Your task to perform on an android device: open app "Mercado Libre" Image 0: 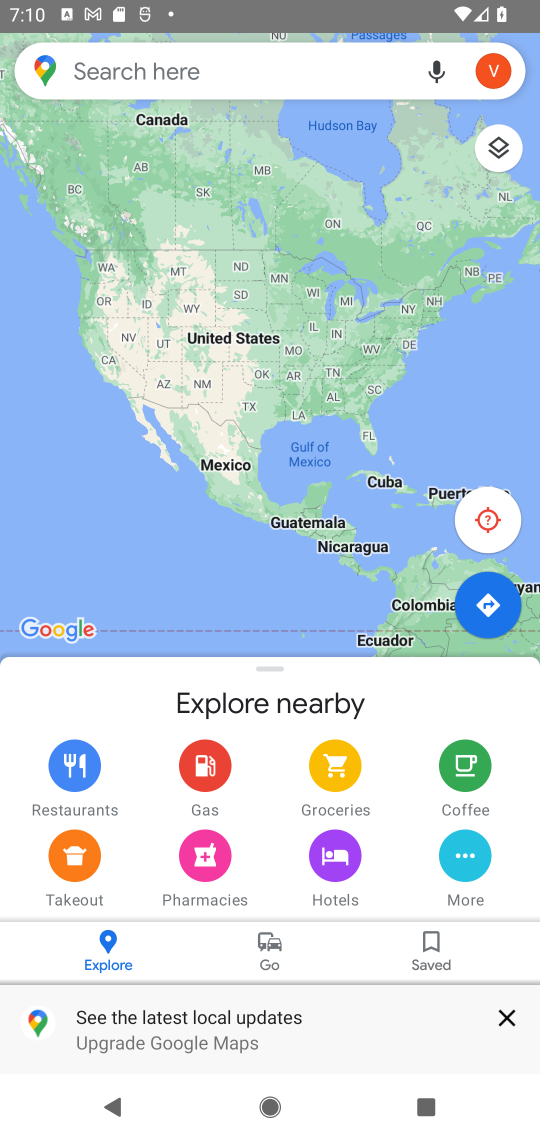
Step 0: press back button
Your task to perform on an android device: open app "Mercado Libre" Image 1: 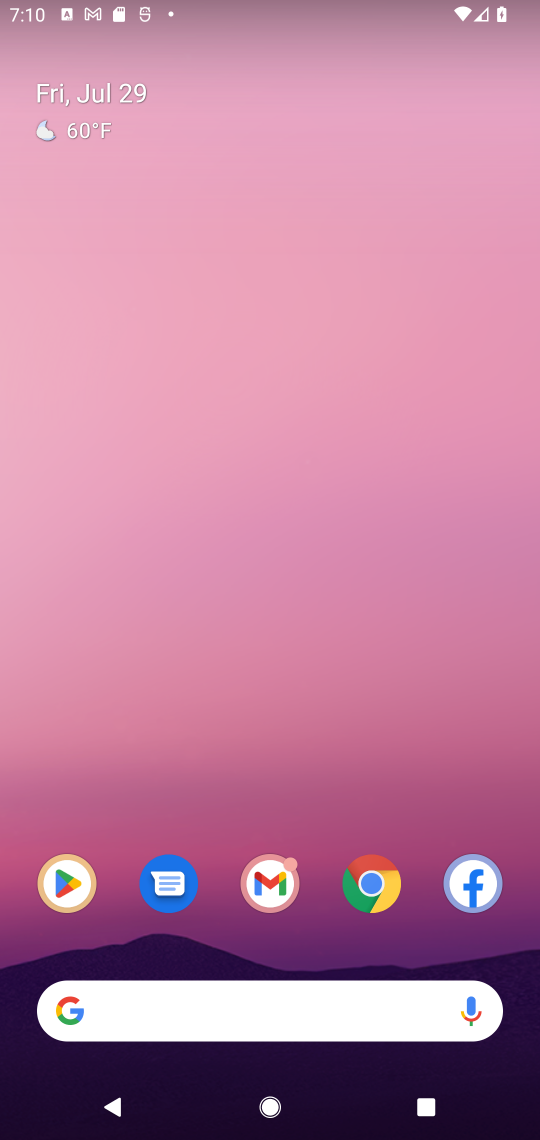
Step 1: click (55, 895)
Your task to perform on an android device: open app "Mercado Libre" Image 2: 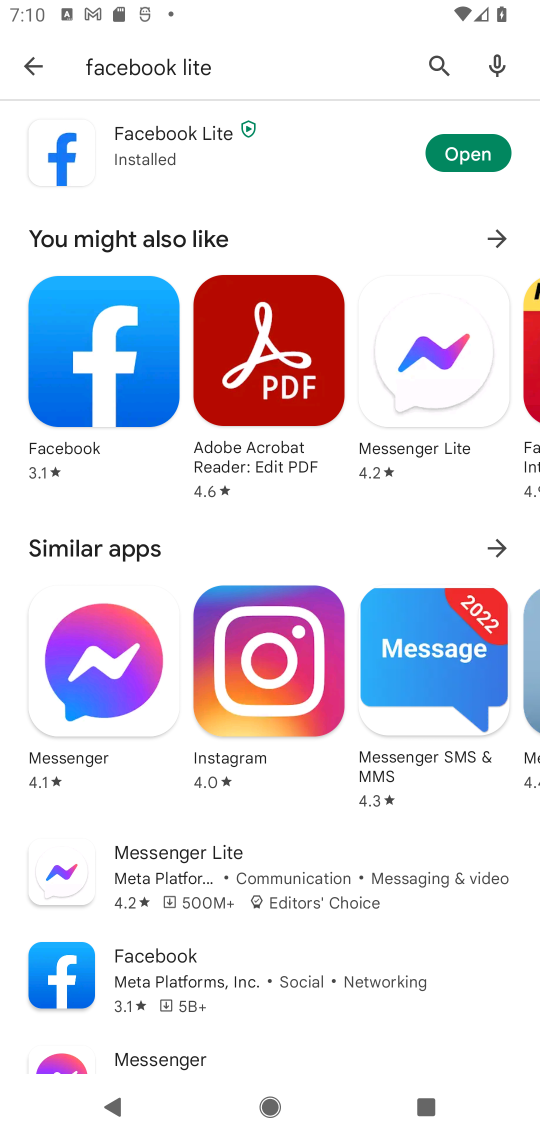
Step 2: click (437, 67)
Your task to perform on an android device: open app "Mercado Libre" Image 3: 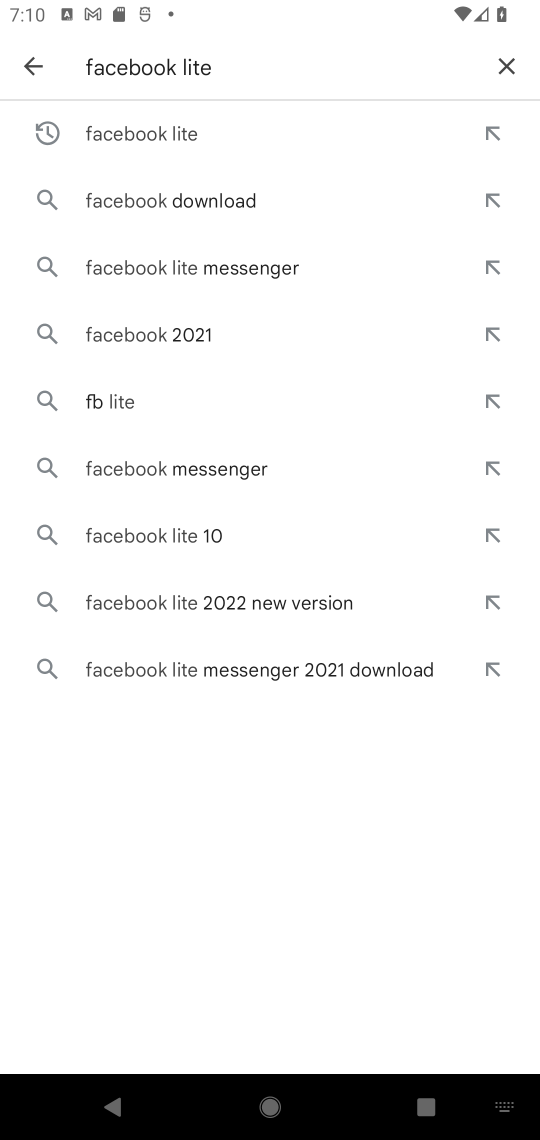
Step 3: click (505, 69)
Your task to perform on an android device: open app "Mercado Libre" Image 4: 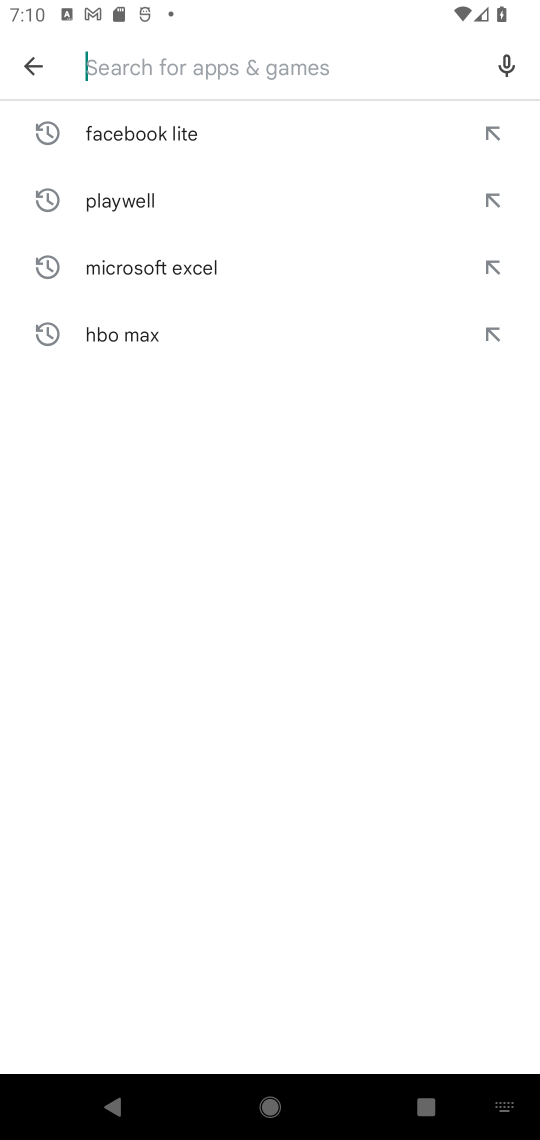
Step 4: click (127, 66)
Your task to perform on an android device: open app "Mercado Libre" Image 5: 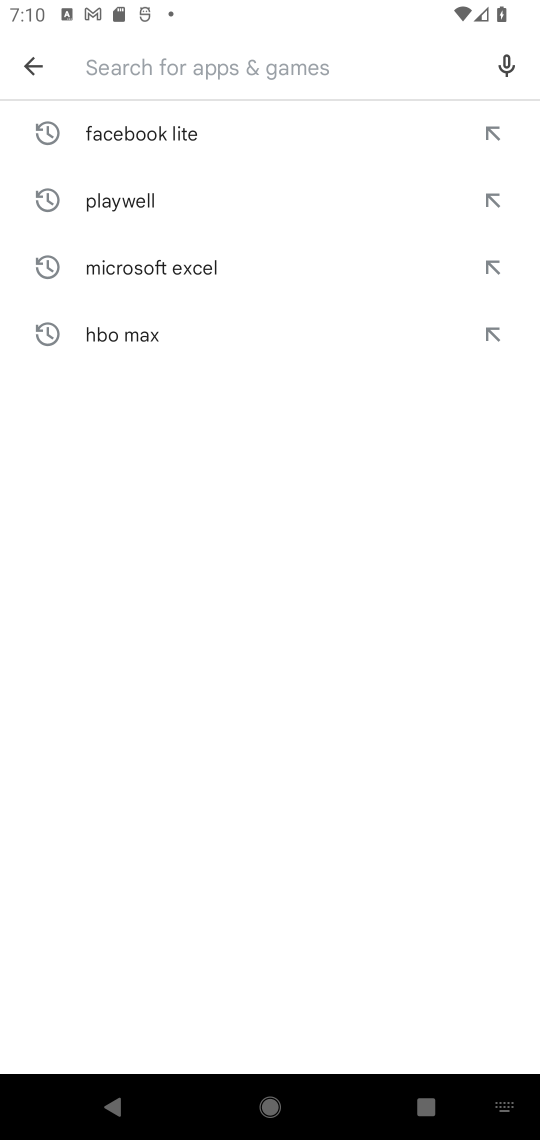
Step 5: type "mercado libre"
Your task to perform on an android device: open app "Mercado Libre" Image 6: 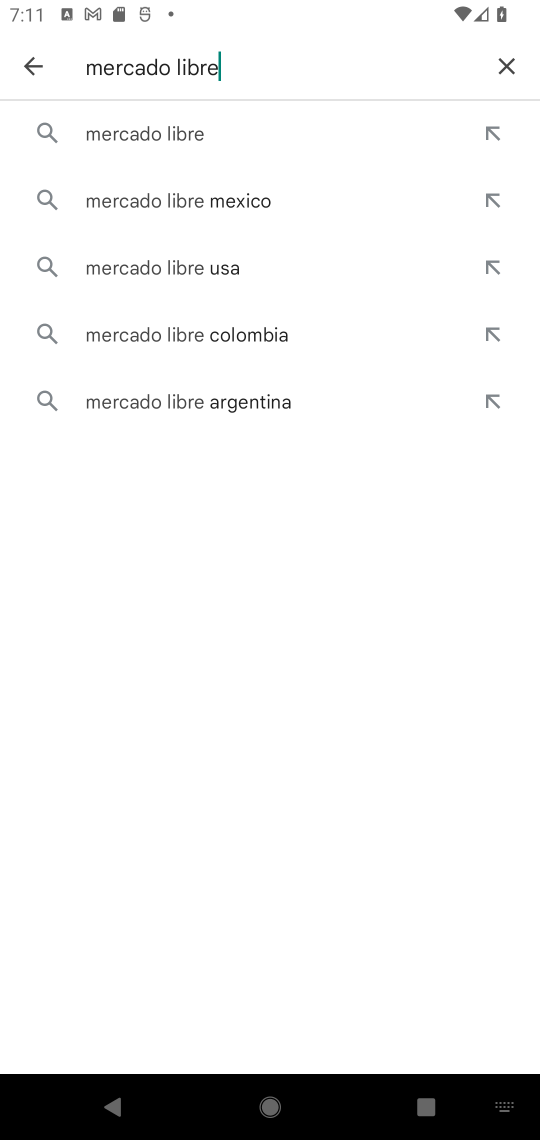
Step 6: click (198, 139)
Your task to perform on an android device: open app "Mercado Libre" Image 7: 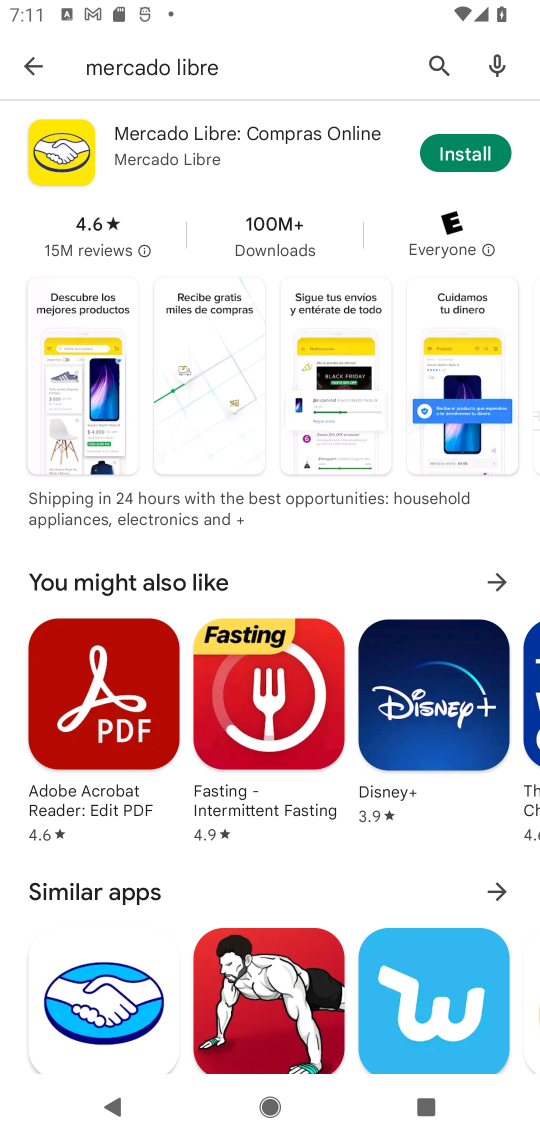
Step 7: task complete